Your task to perform on an android device: check battery use Image 0: 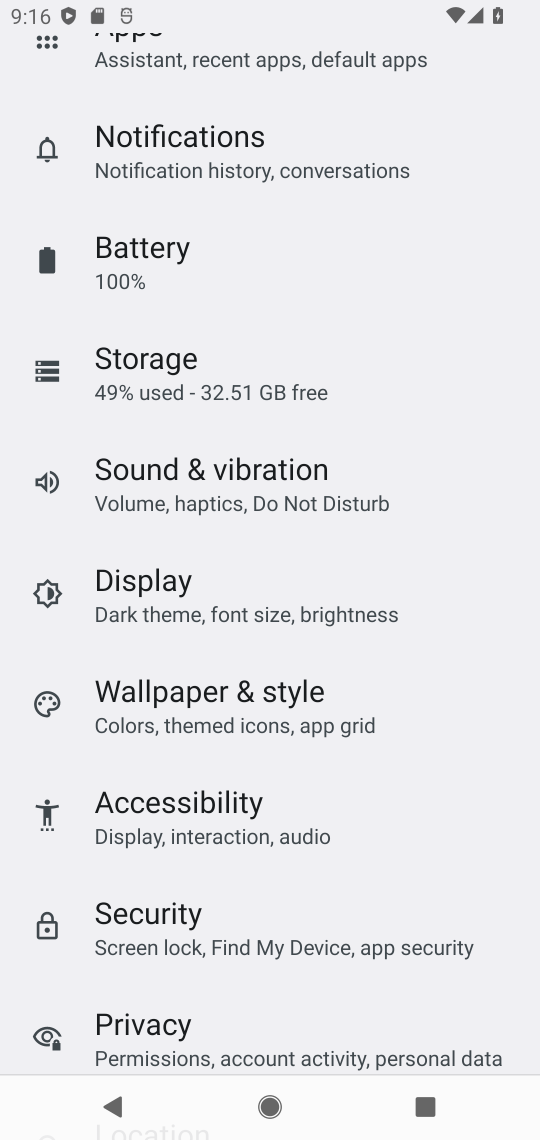
Step 0: click (173, 271)
Your task to perform on an android device: check battery use Image 1: 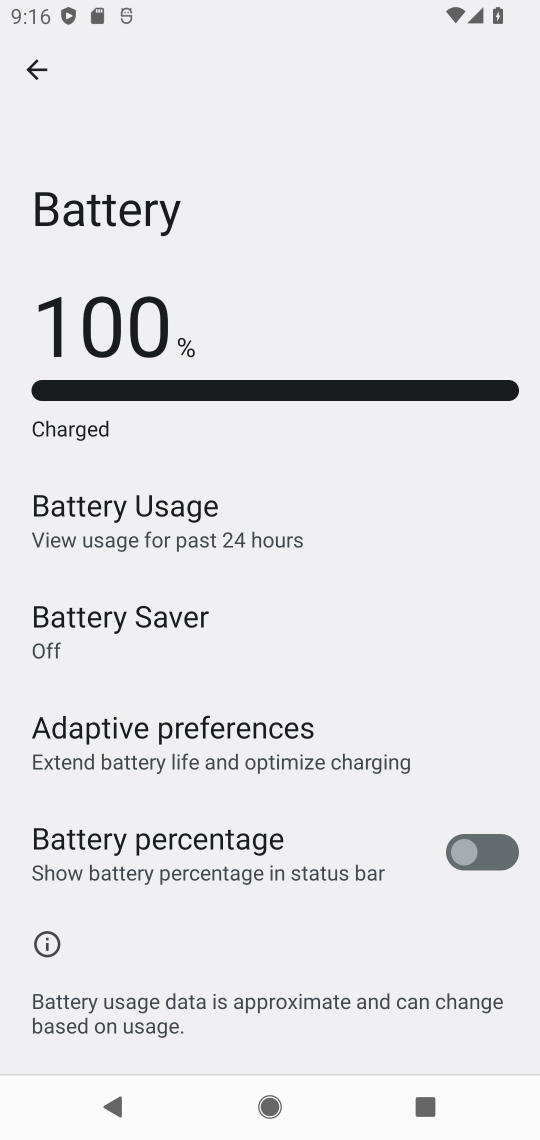
Step 1: click (192, 519)
Your task to perform on an android device: check battery use Image 2: 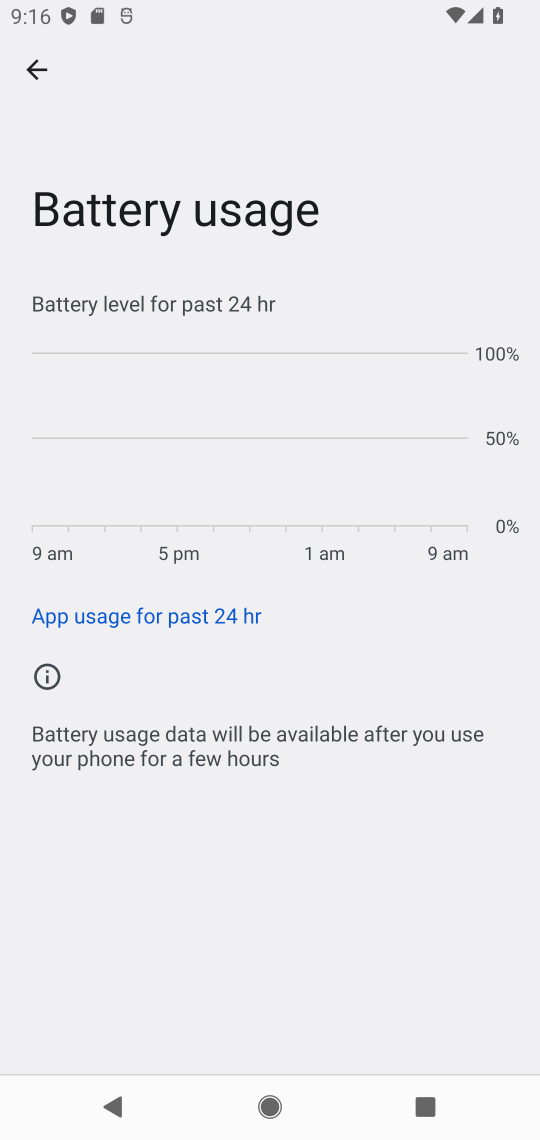
Step 2: task complete